Your task to perform on an android device: When is my next appointment? Image 0: 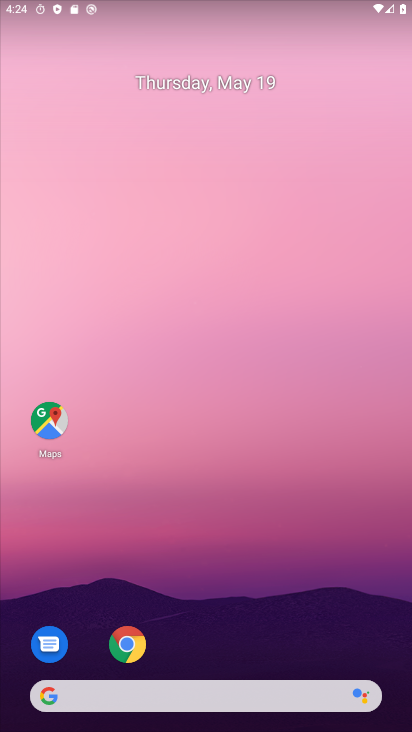
Step 0: drag from (206, 679) to (206, 255)
Your task to perform on an android device: When is my next appointment? Image 1: 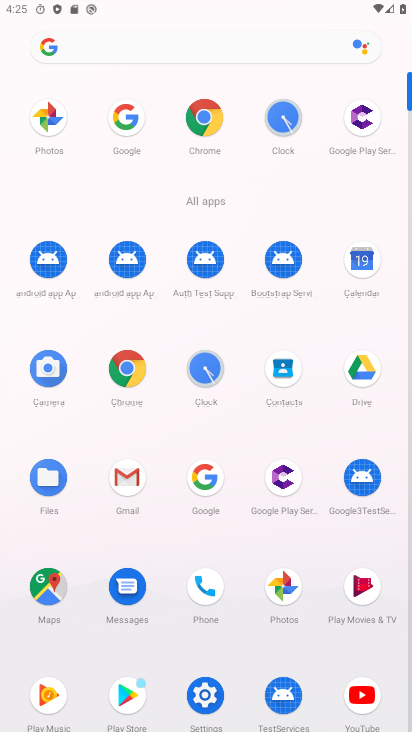
Step 1: click (366, 261)
Your task to perform on an android device: When is my next appointment? Image 2: 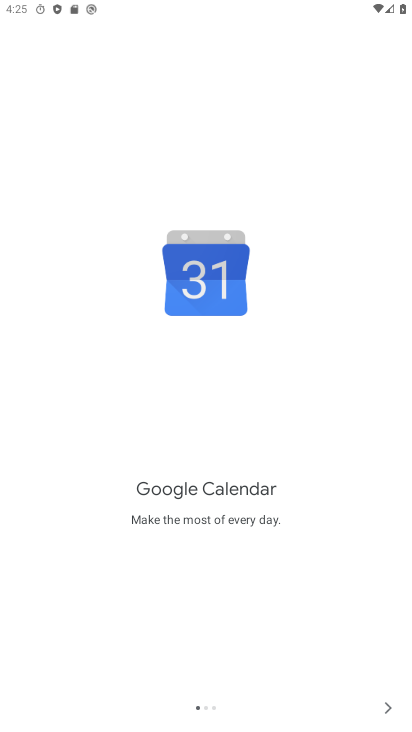
Step 2: click (391, 709)
Your task to perform on an android device: When is my next appointment? Image 3: 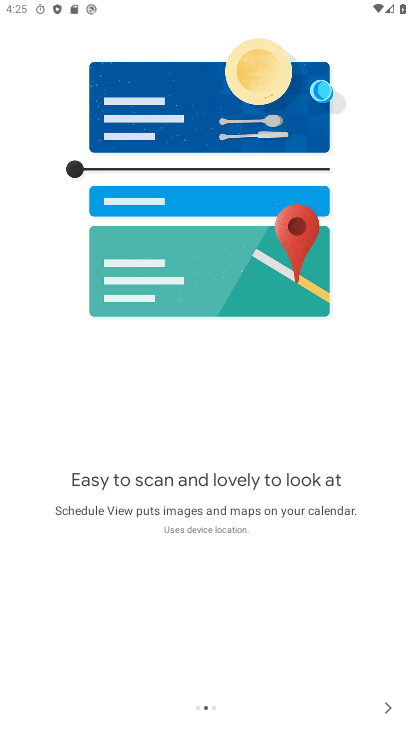
Step 3: click (389, 710)
Your task to perform on an android device: When is my next appointment? Image 4: 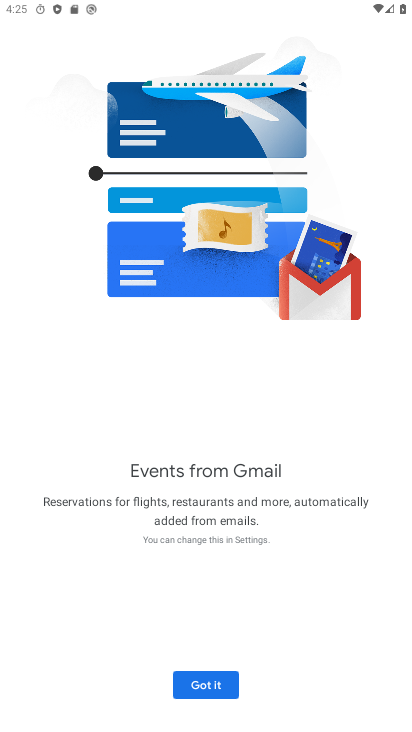
Step 4: click (212, 684)
Your task to perform on an android device: When is my next appointment? Image 5: 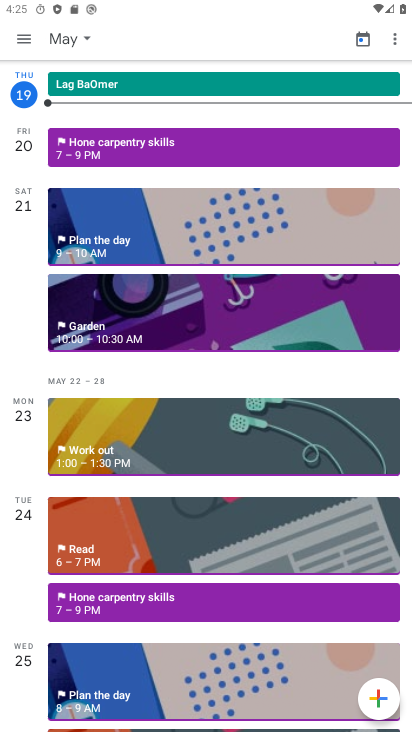
Step 5: click (114, 139)
Your task to perform on an android device: When is my next appointment? Image 6: 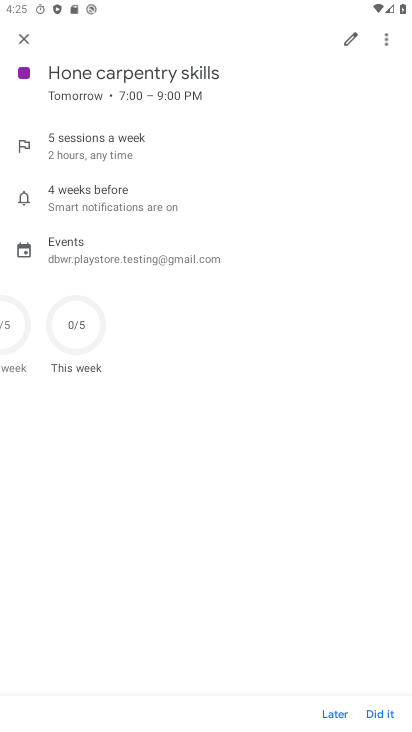
Step 6: task complete